Your task to perform on an android device: Go to wifi settings Image 0: 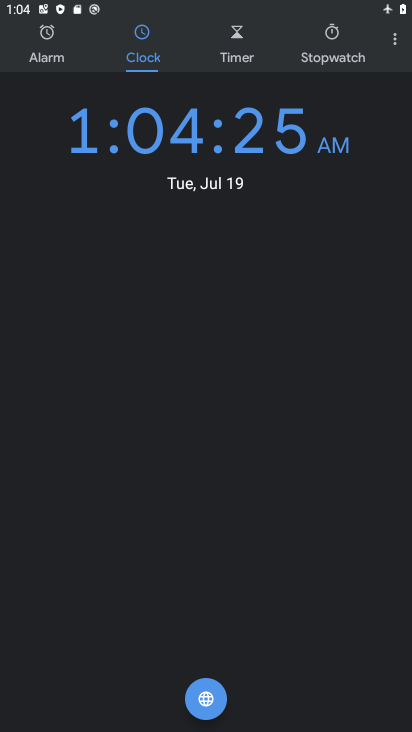
Step 0: press home button
Your task to perform on an android device: Go to wifi settings Image 1: 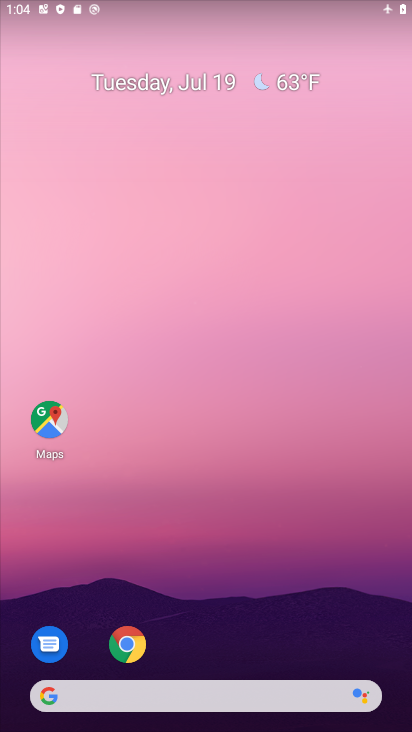
Step 1: drag from (241, 726) to (224, 112)
Your task to perform on an android device: Go to wifi settings Image 2: 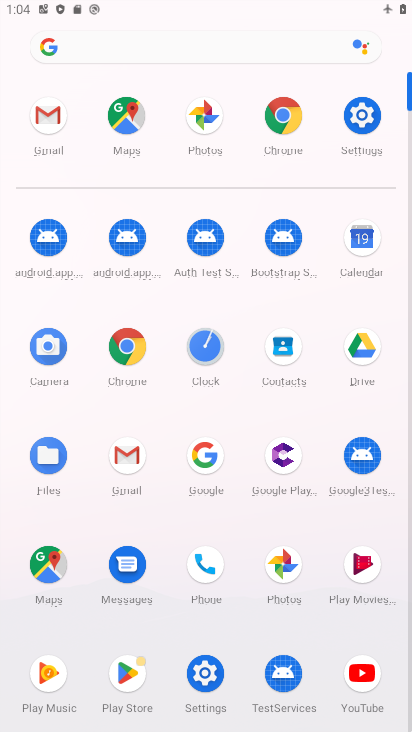
Step 2: click (366, 118)
Your task to perform on an android device: Go to wifi settings Image 3: 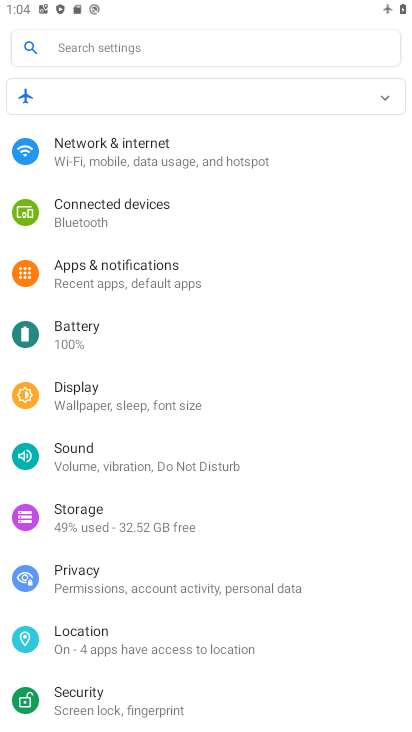
Step 3: click (115, 151)
Your task to perform on an android device: Go to wifi settings Image 4: 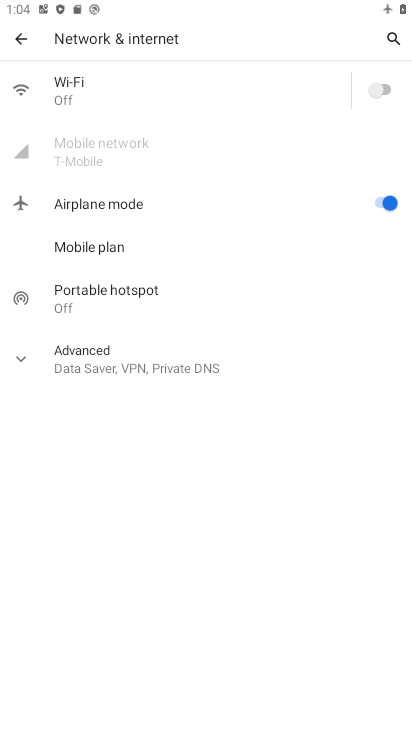
Step 4: click (67, 86)
Your task to perform on an android device: Go to wifi settings Image 5: 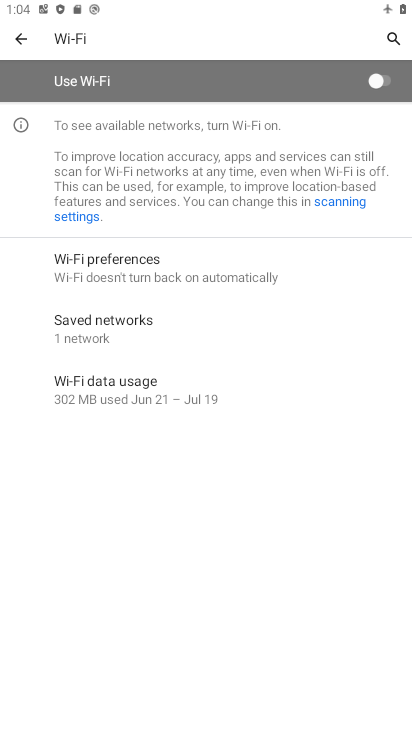
Step 5: task complete